Your task to perform on an android device: turn off location history Image 0: 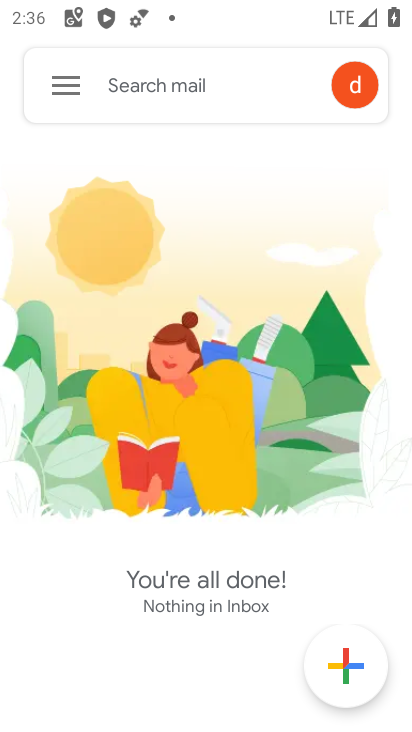
Step 0: press back button
Your task to perform on an android device: turn off location history Image 1: 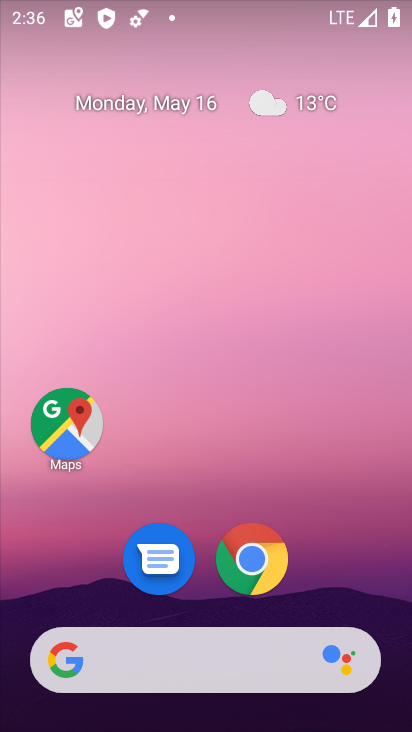
Step 1: drag from (207, 588) to (288, 13)
Your task to perform on an android device: turn off location history Image 2: 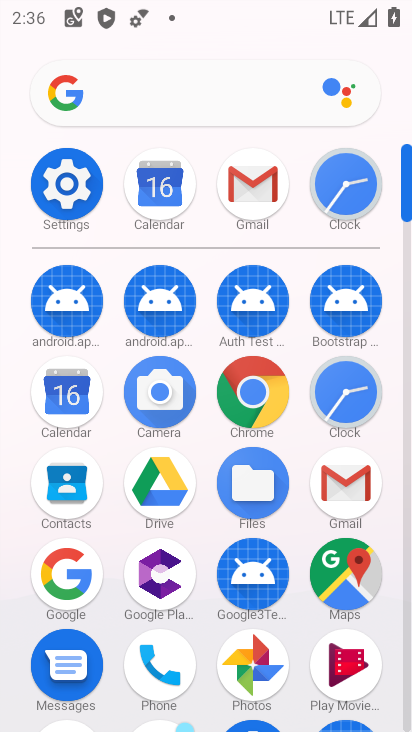
Step 2: click (51, 187)
Your task to perform on an android device: turn off location history Image 3: 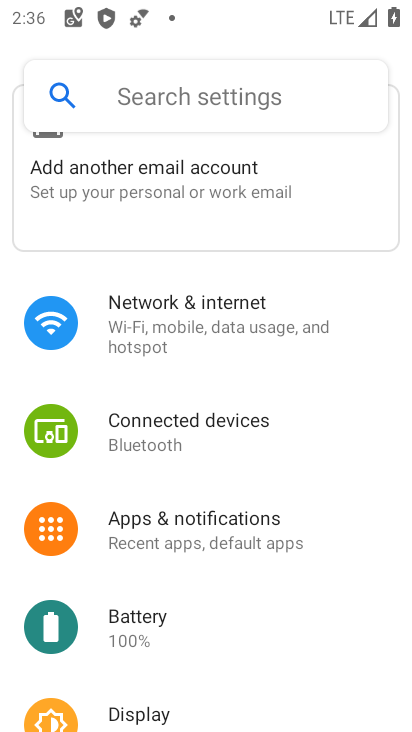
Step 3: drag from (200, 589) to (252, 338)
Your task to perform on an android device: turn off location history Image 4: 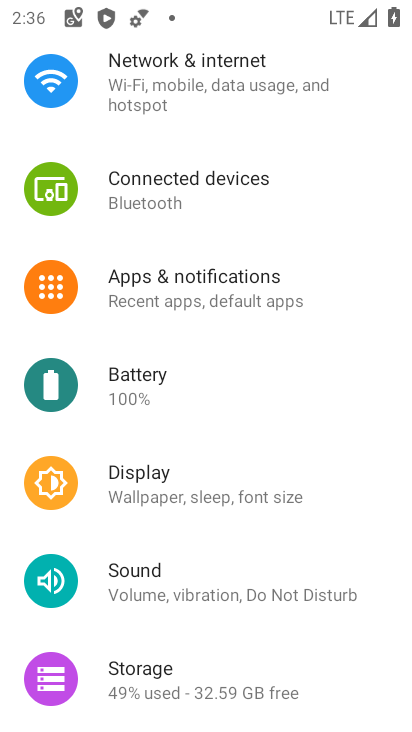
Step 4: drag from (181, 570) to (288, 131)
Your task to perform on an android device: turn off location history Image 5: 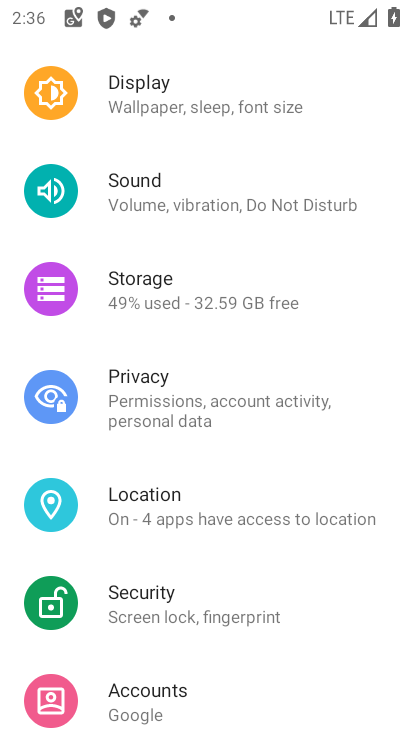
Step 5: click (140, 498)
Your task to perform on an android device: turn off location history Image 6: 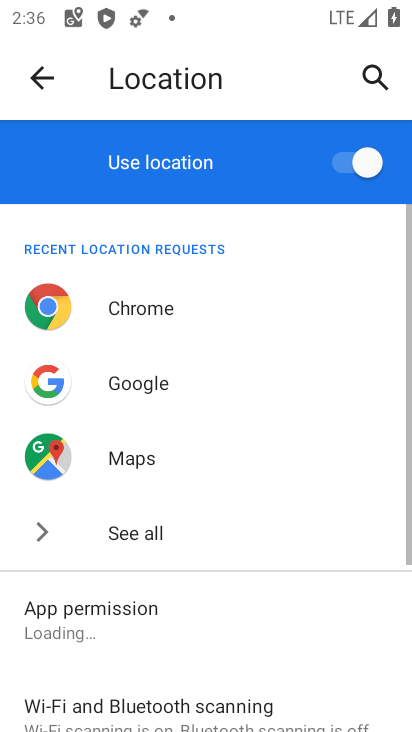
Step 6: drag from (174, 608) to (323, 81)
Your task to perform on an android device: turn off location history Image 7: 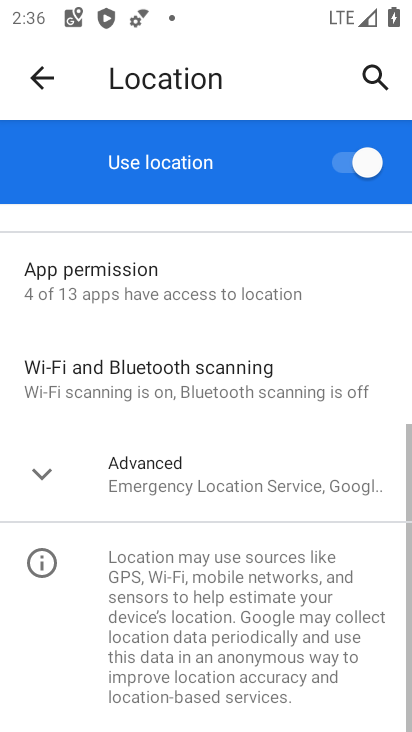
Step 7: click (200, 463)
Your task to perform on an android device: turn off location history Image 8: 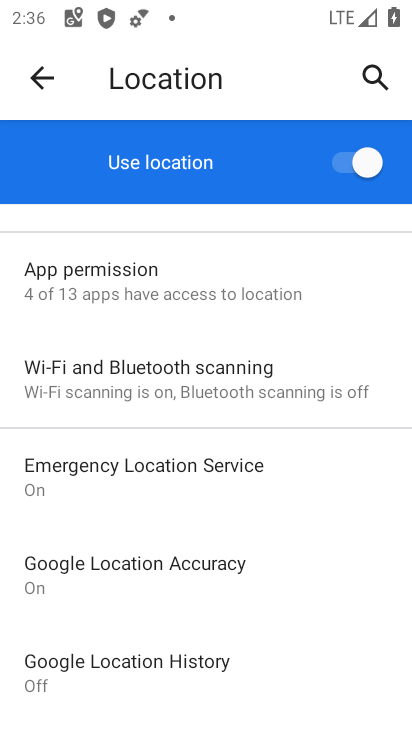
Step 8: drag from (167, 675) to (219, 401)
Your task to perform on an android device: turn off location history Image 9: 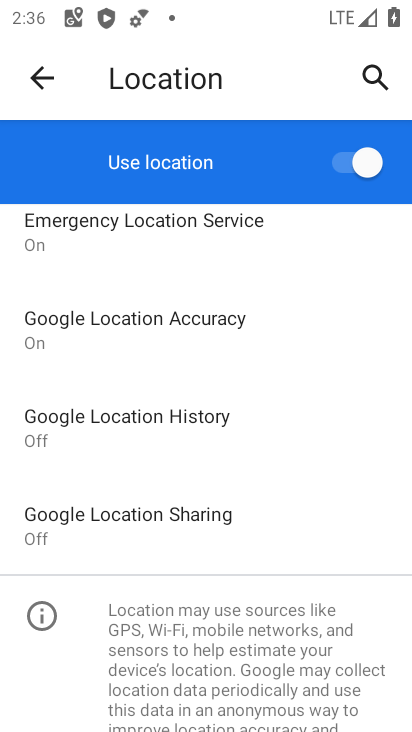
Step 9: click (85, 412)
Your task to perform on an android device: turn off location history Image 10: 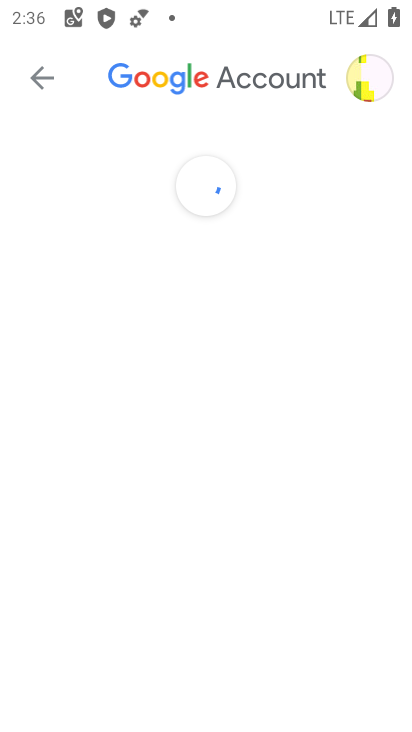
Step 10: drag from (251, 527) to (283, 75)
Your task to perform on an android device: turn off location history Image 11: 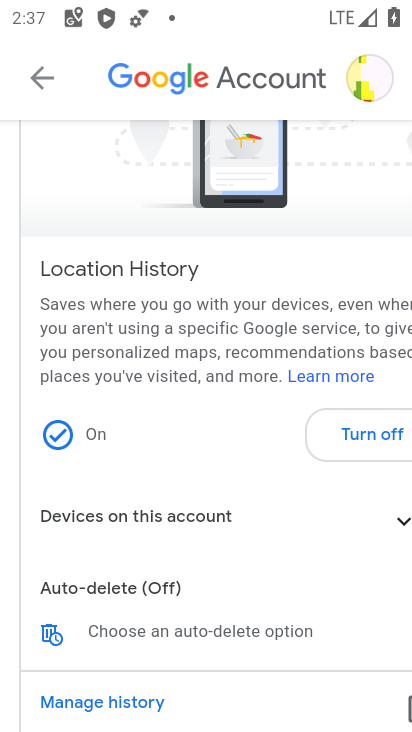
Step 11: drag from (188, 527) to (104, 132)
Your task to perform on an android device: turn off location history Image 12: 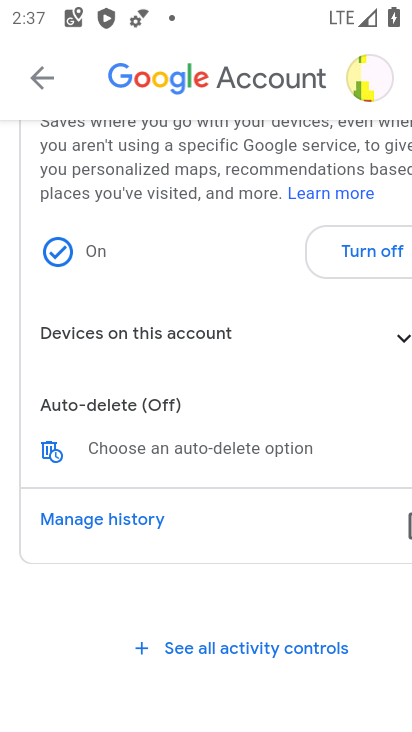
Step 12: click (359, 253)
Your task to perform on an android device: turn off location history Image 13: 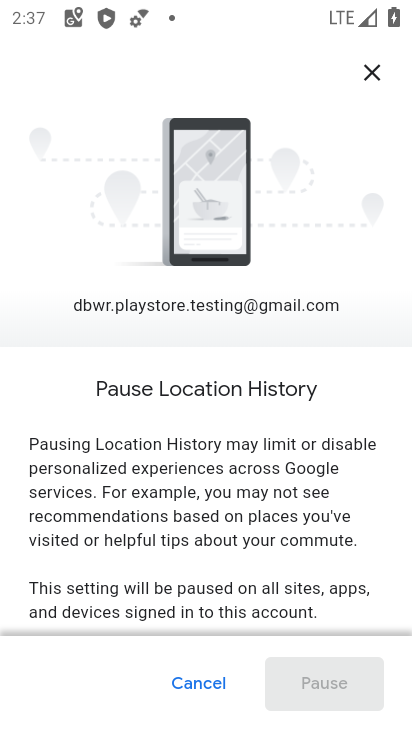
Step 13: drag from (203, 536) to (262, 31)
Your task to perform on an android device: turn off location history Image 14: 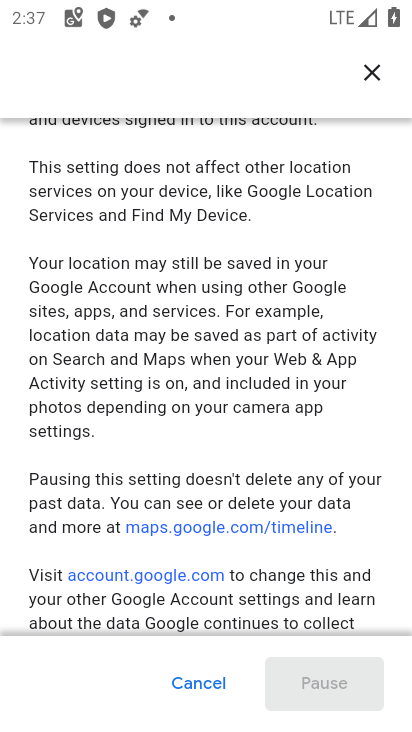
Step 14: drag from (197, 527) to (253, 10)
Your task to perform on an android device: turn off location history Image 15: 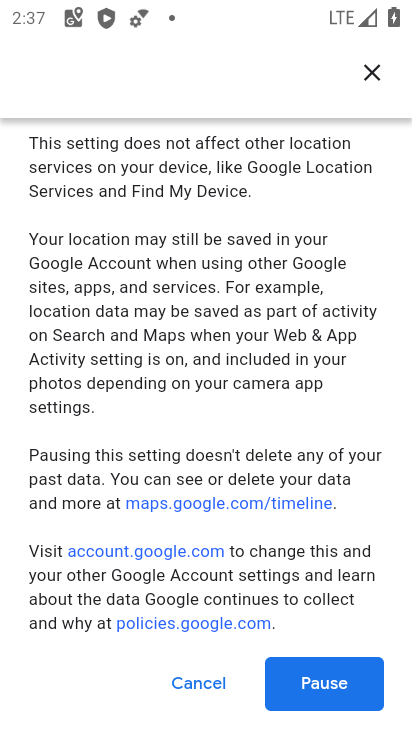
Step 15: drag from (197, 550) to (252, 182)
Your task to perform on an android device: turn off location history Image 16: 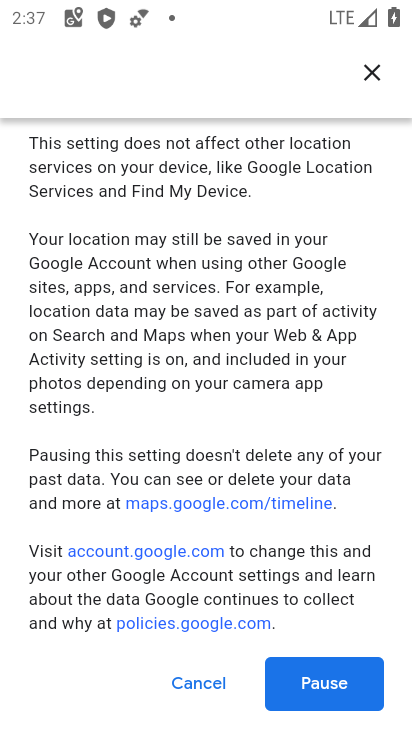
Step 16: click (332, 697)
Your task to perform on an android device: turn off location history Image 17: 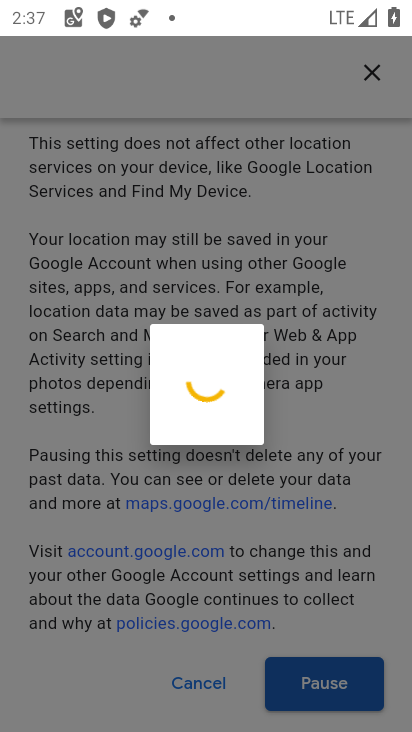
Step 17: drag from (227, 545) to (301, 110)
Your task to perform on an android device: turn off location history Image 18: 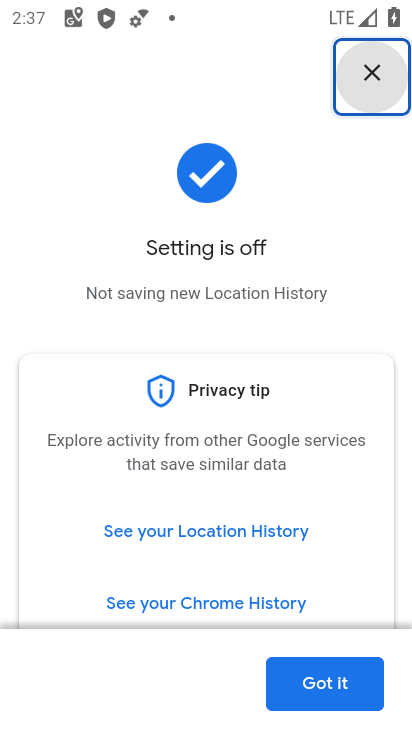
Step 18: click (320, 667)
Your task to perform on an android device: turn off location history Image 19: 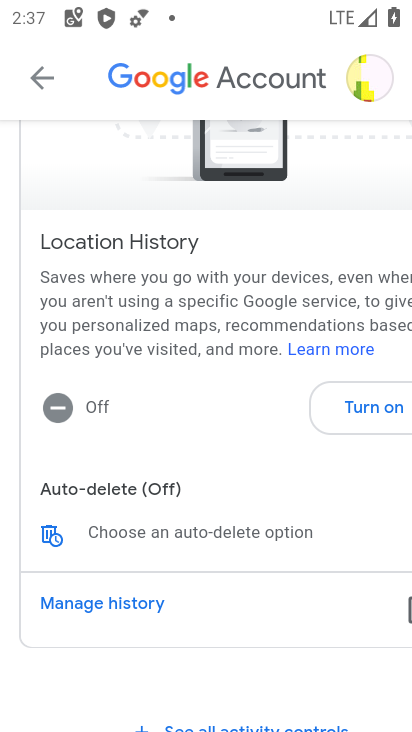
Step 19: task complete